Your task to perform on an android device: turn off wifi Image 0: 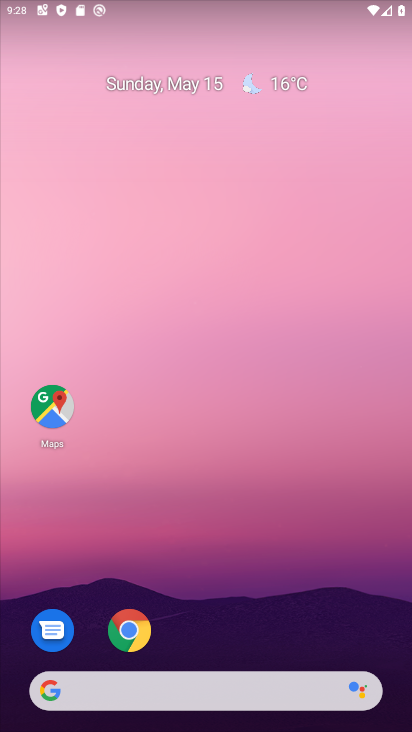
Step 0: drag from (233, 618) to (239, 223)
Your task to perform on an android device: turn off wifi Image 1: 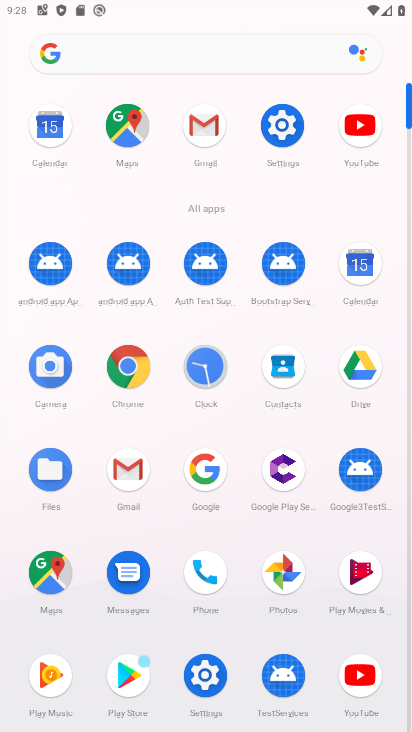
Step 1: click (261, 139)
Your task to perform on an android device: turn off wifi Image 2: 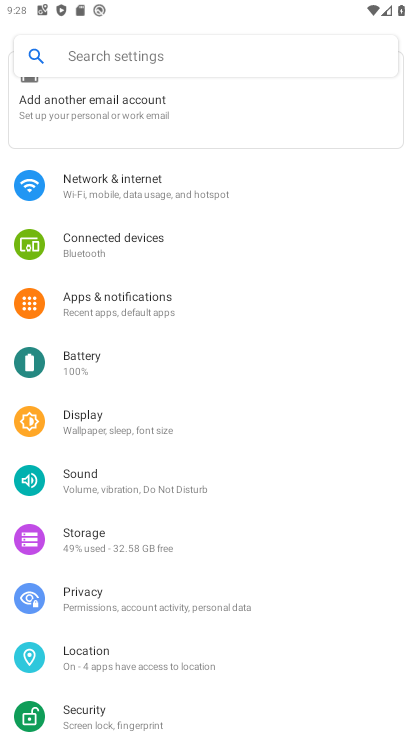
Step 2: click (104, 188)
Your task to perform on an android device: turn off wifi Image 3: 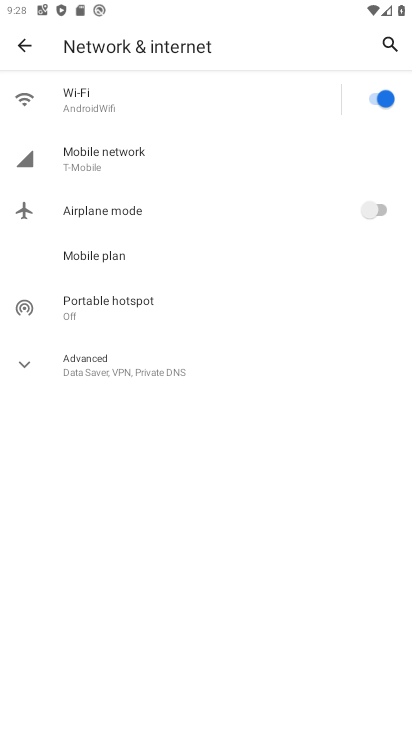
Step 3: click (368, 95)
Your task to perform on an android device: turn off wifi Image 4: 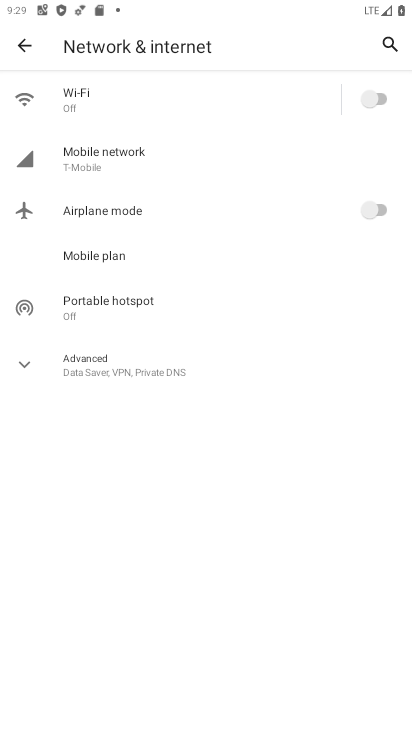
Step 4: task complete